Your task to perform on an android device: delete the emails in spam in the gmail app Image 0: 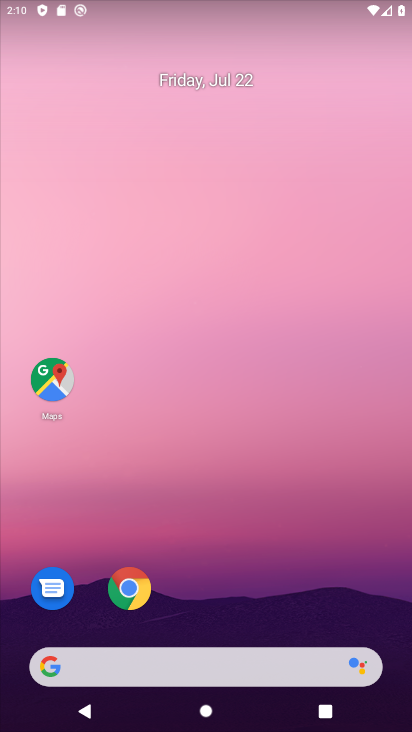
Step 0: press home button
Your task to perform on an android device: delete the emails in spam in the gmail app Image 1: 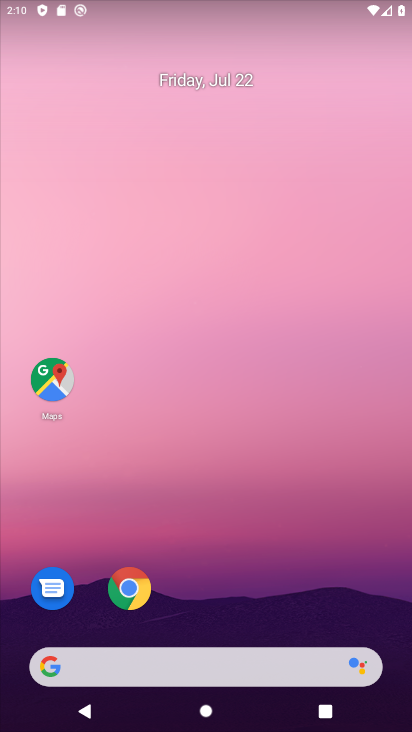
Step 1: drag from (212, 298) to (17, 0)
Your task to perform on an android device: delete the emails in spam in the gmail app Image 2: 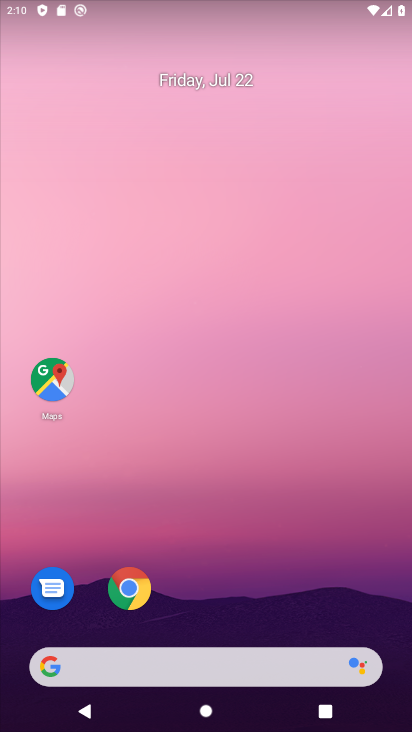
Step 2: drag from (217, 631) to (199, 57)
Your task to perform on an android device: delete the emails in spam in the gmail app Image 3: 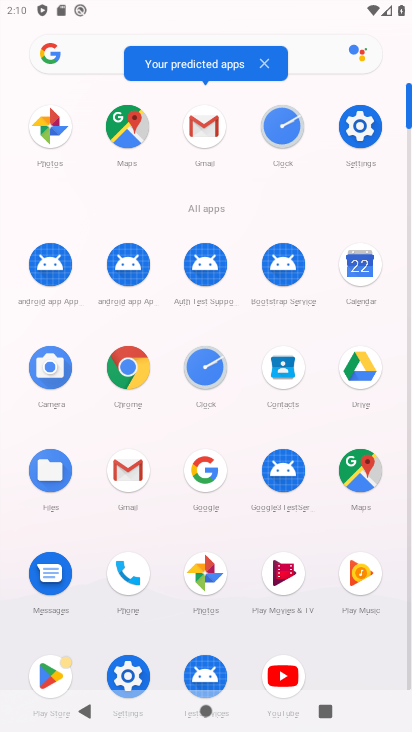
Step 3: click (202, 121)
Your task to perform on an android device: delete the emails in spam in the gmail app Image 4: 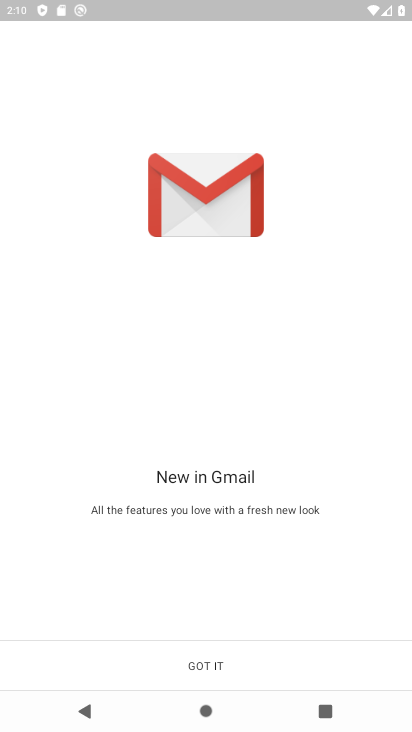
Step 4: click (204, 665)
Your task to perform on an android device: delete the emails in spam in the gmail app Image 5: 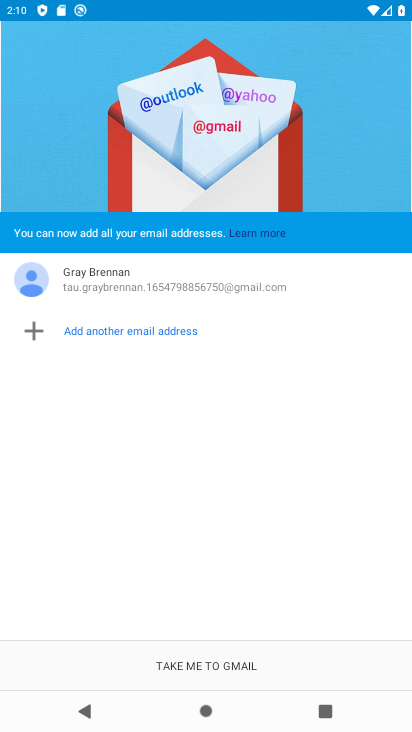
Step 5: click (183, 663)
Your task to perform on an android device: delete the emails in spam in the gmail app Image 6: 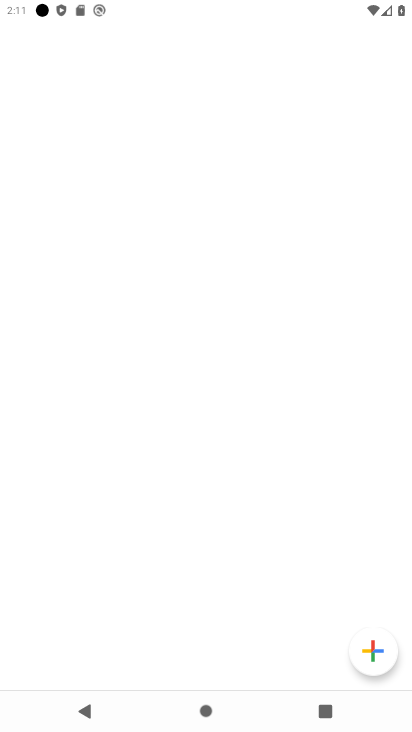
Step 6: click (209, 666)
Your task to perform on an android device: delete the emails in spam in the gmail app Image 7: 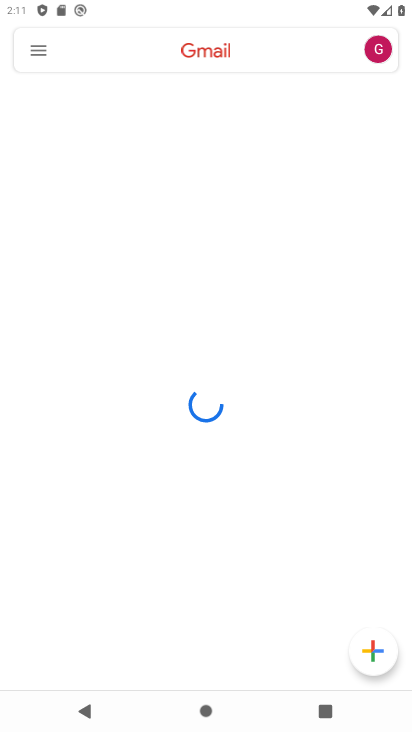
Step 7: click (46, 52)
Your task to perform on an android device: delete the emails in spam in the gmail app Image 8: 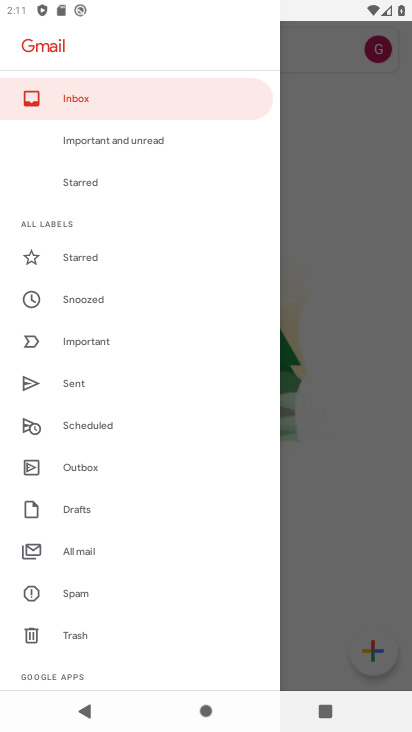
Step 8: click (97, 597)
Your task to perform on an android device: delete the emails in spam in the gmail app Image 9: 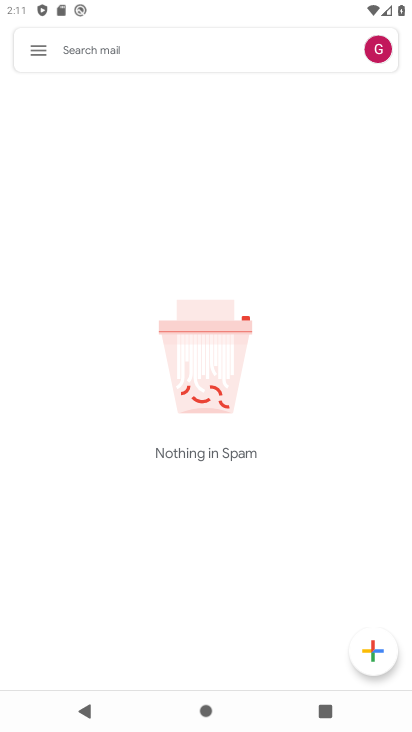
Step 9: task complete